Your task to perform on an android device: remove spam from my inbox in the gmail app Image 0: 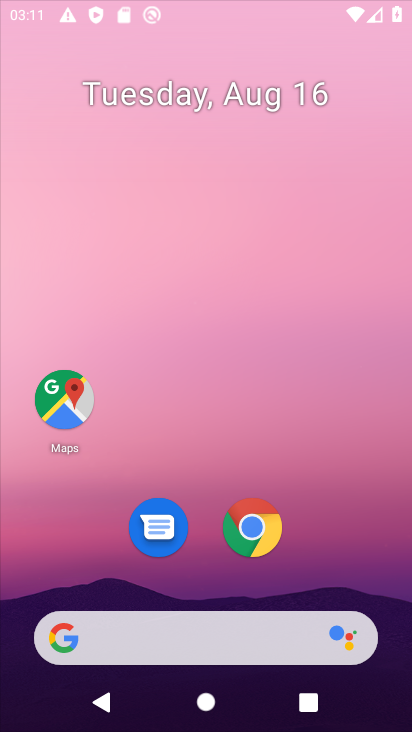
Step 0: press home button
Your task to perform on an android device: remove spam from my inbox in the gmail app Image 1: 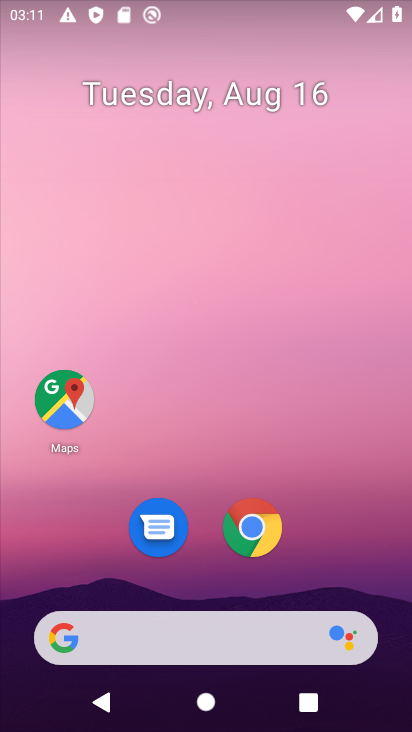
Step 1: drag from (203, 582) to (257, 75)
Your task to perform on an android device: remove spam from my inbox in the gmail app Image 2: 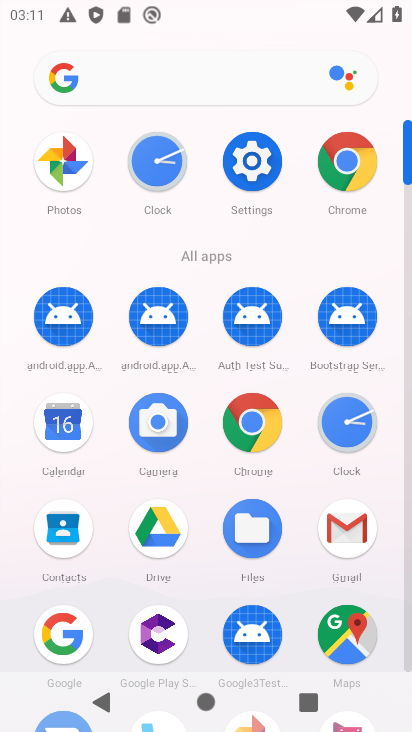
Step 2: click (342, 522)
Your task to perform on an android device: remove spam from my inbox in the gmail app Image 3: 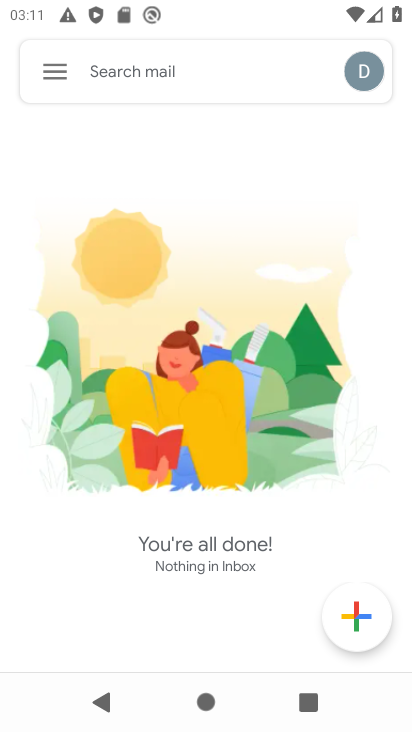
Step 3: click (43, 59)
Your task to perform on an android device: remove spam from my inbox in the gmail app Image 4: 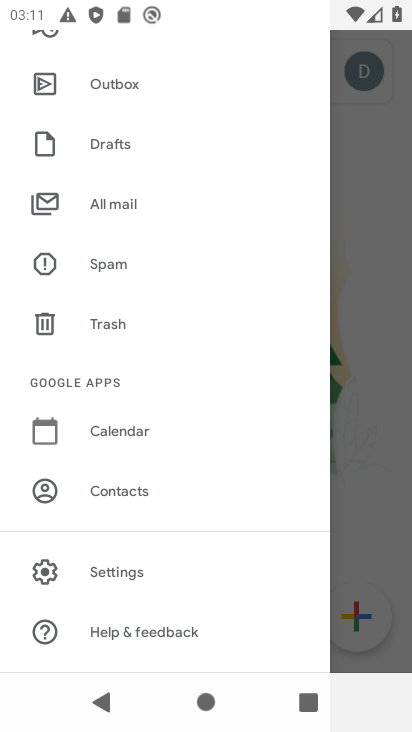
Step 4: click (67, 568)
Your task to perform on an android device: remove spam from my inbox in the gmail app Image 5: 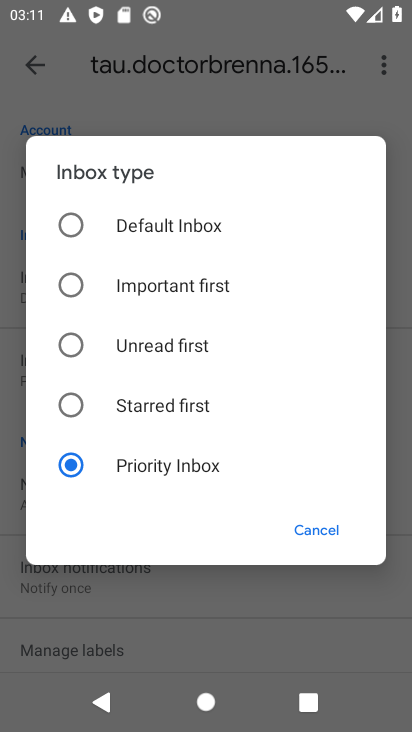
Step 5: click (318, 523)
Your task to perform on an android device: remove spam from my inbox in the gmail app Image 6: 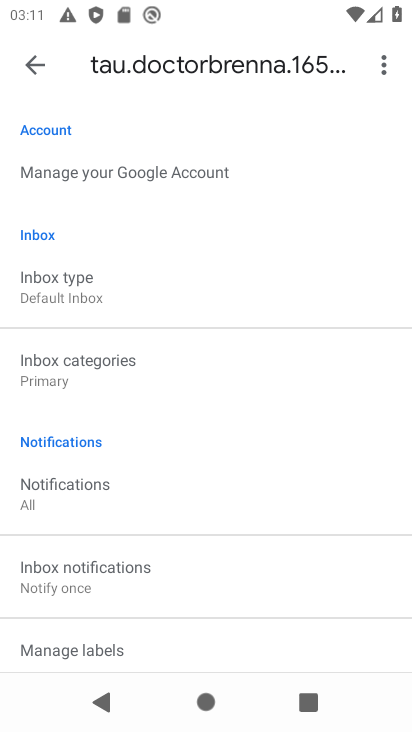
Step 6: click (41, 77)
Your task to perform on an android device: remove spam from my inbox in the gmail app Image 7: 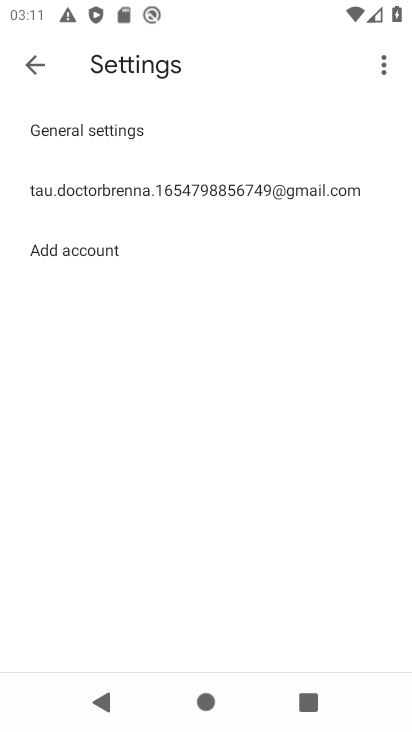
Step 7: click (34, 72)
Your task to perform on an android device: remove spam from my inbox in the gmail app Image 8: 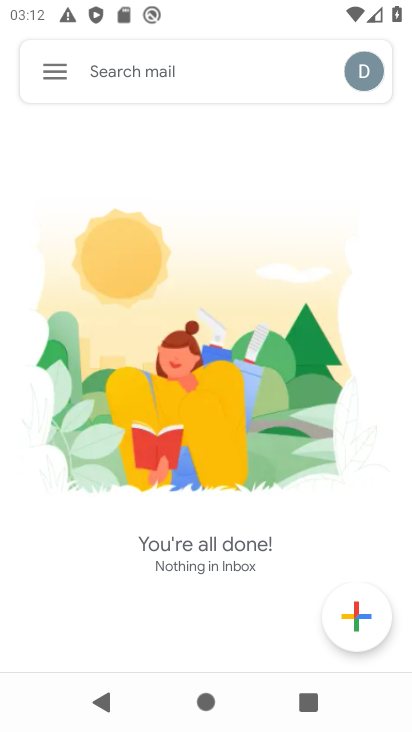
Step 8: click (46, 68)
Your task to perform on an android device: remove spam from my inbox in the gmail app Image 9: 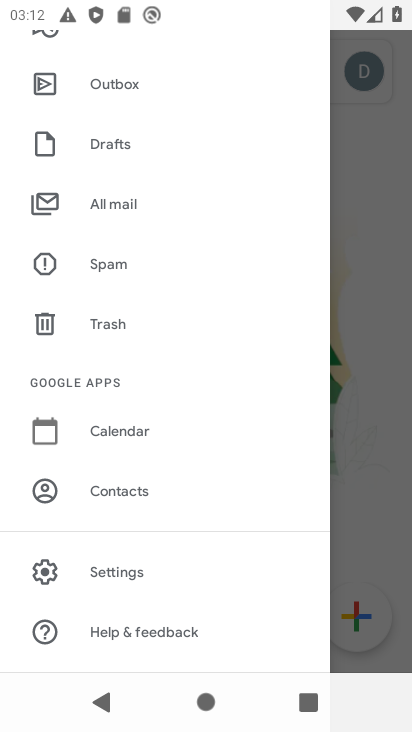
Step 9: click (77, 261)
Your task to perform on an android device: remove spam from my inbox in the gmail app Image 10: 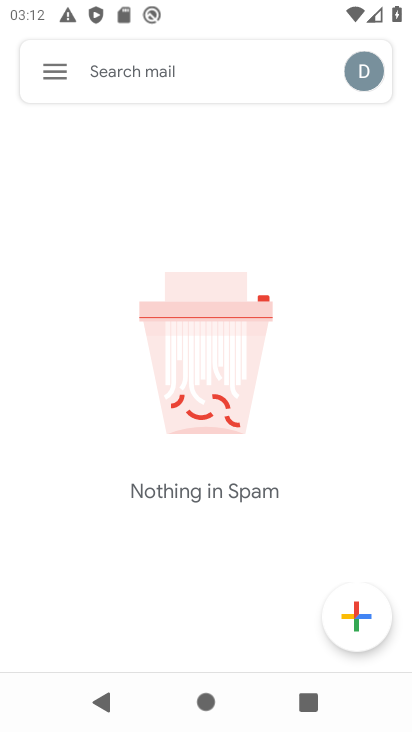
Step 10: task complete